Your task to perform on an android device: Do I have any events today? Image 0: 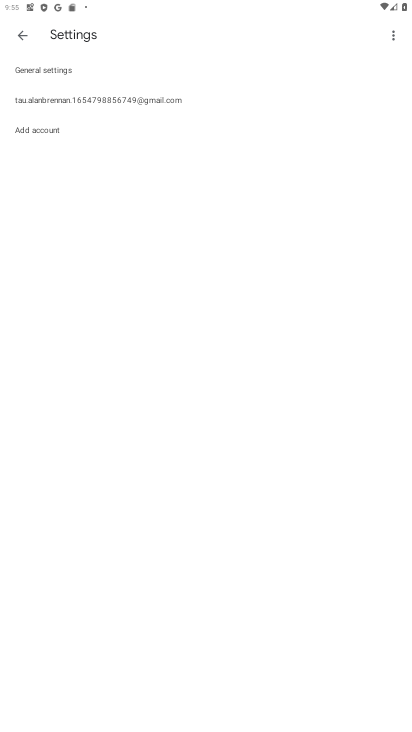
Step 0: press home button
Your task to perform on an android device: Do I have any events today? Image 1: 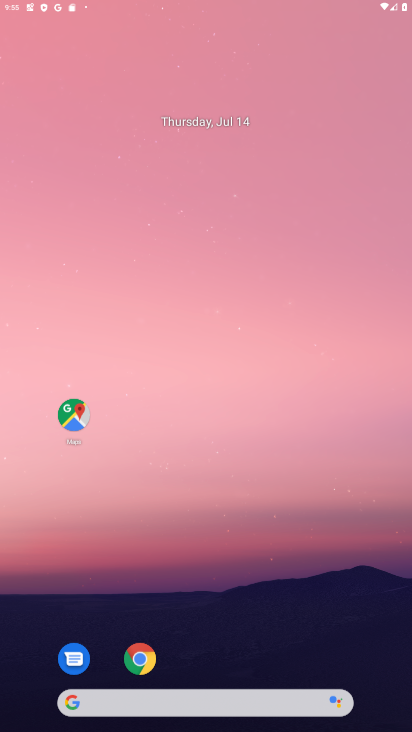
Step 1: press home button
Your task to perform on an android device: Do I have any events today? Image 2: 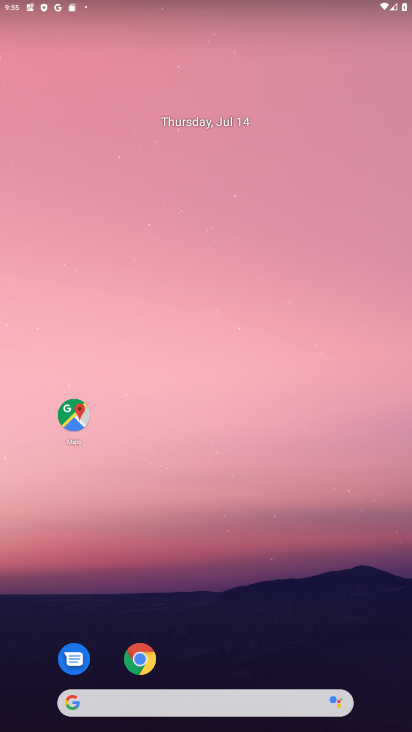
Step 2: drag from (260, 553) to (198, 94)
Your task to perform on an android device: Do I have any events today? Image 3: 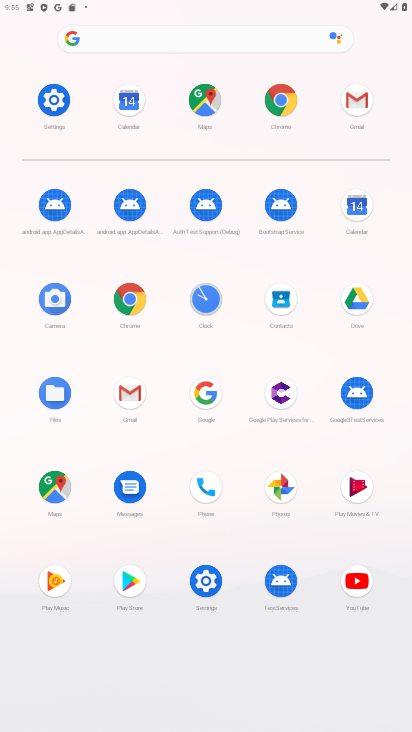
Step 3: click (343, 208)
Your task to perform on an android device: Do I have any events today? Image 4: 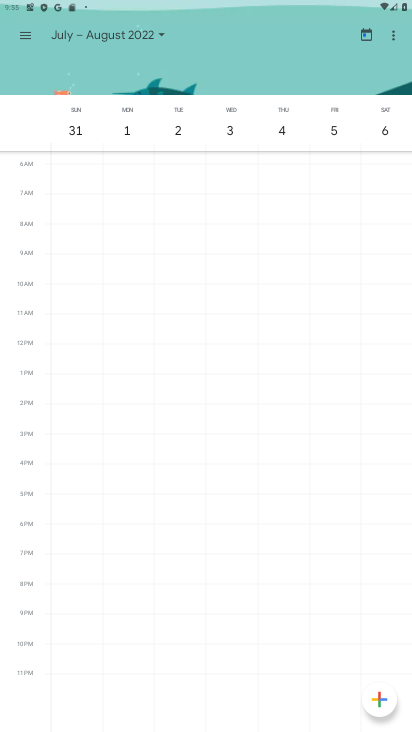
Step 4: click (125, 22)
Your task to perform on an android device: Do I have any events today? Image 5: 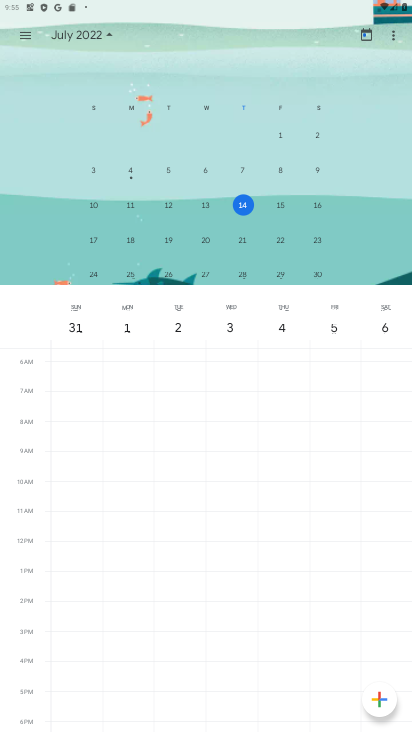
Step 5: click (109, 176)
Your task to perform on an android device: Do I have any events today? Image 6: 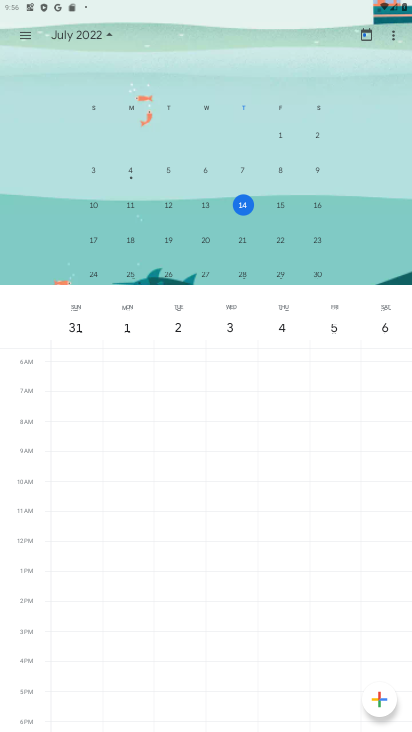
Step 6: click (234, 201)
Your task to perform on an android device: Do I have any events today? Image 7: 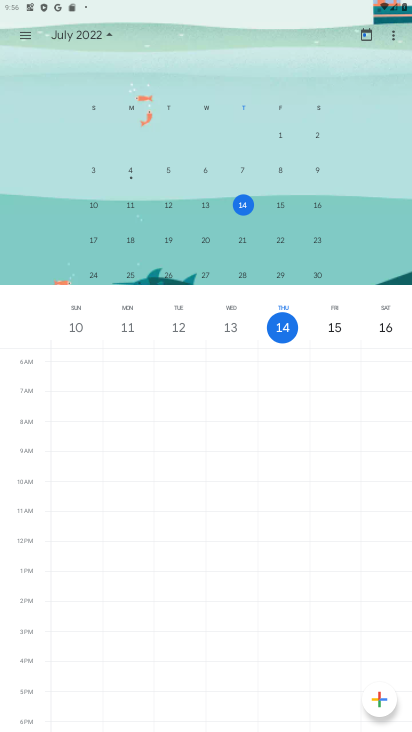
Step 7: click (289, 320)
Your task to perform on an android device: Do I have any events today? Image 8: 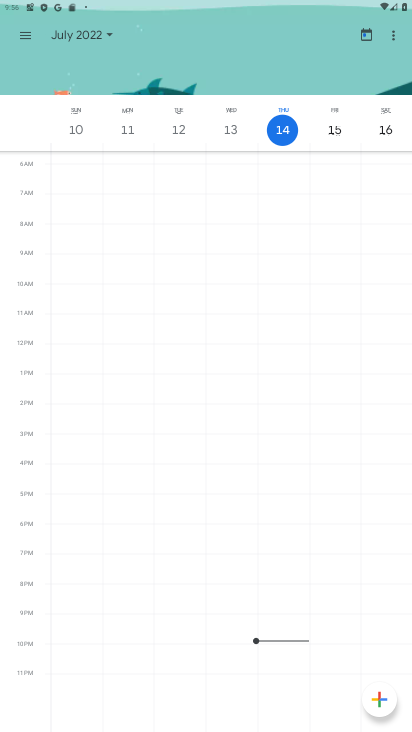
Step 8: task complete